Your task to perform on an android device: check android version Image 0: 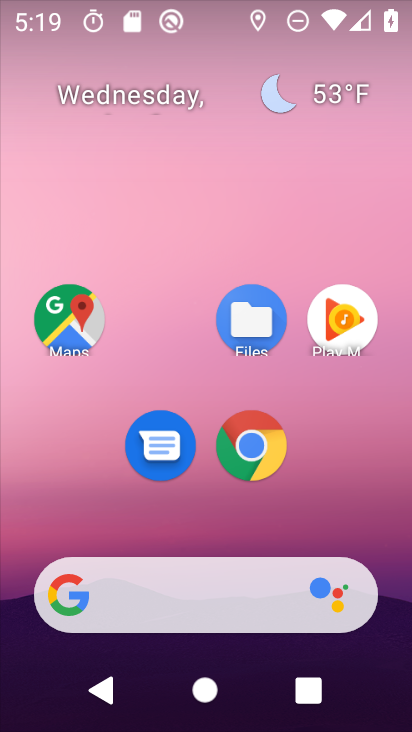
Step 0: drag from (317, 474) to (209, 3)
Your task to perform on an android device: check android version Image 1: 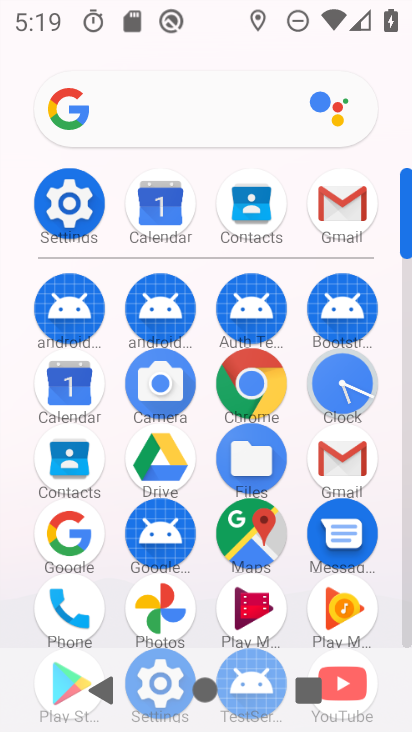
Step 1: click (75, 195)
Your task to perform on an android device: check android version Image 2: 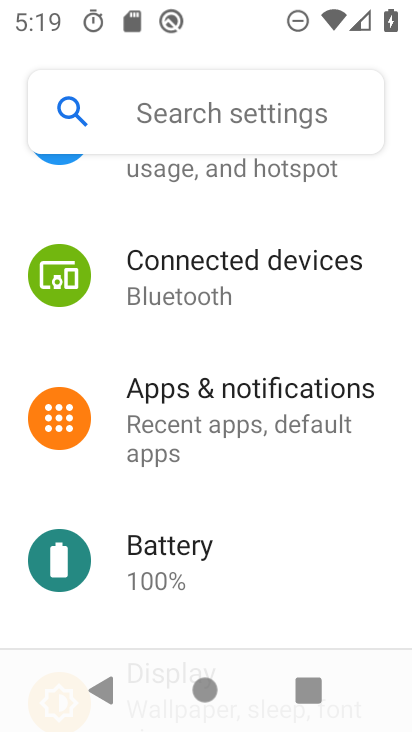
Step 2: drag from (229, 565) to (210, 280)
Your task to perform on an android device: check android version Image 3: 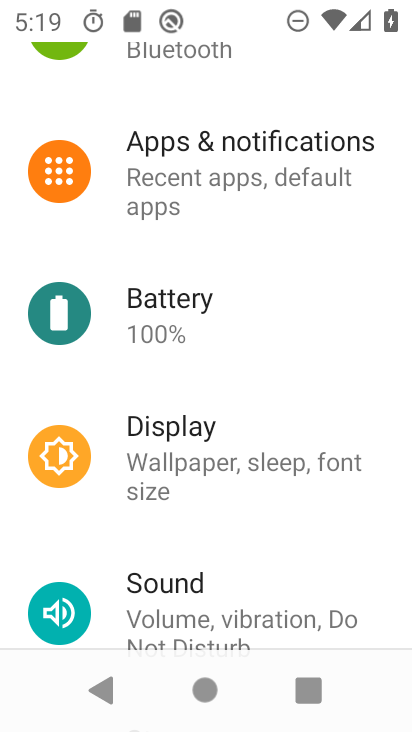
Step 3: drag from (233, 569) to (216, 309)
Your task to perform on an android device: check android version Image 4: 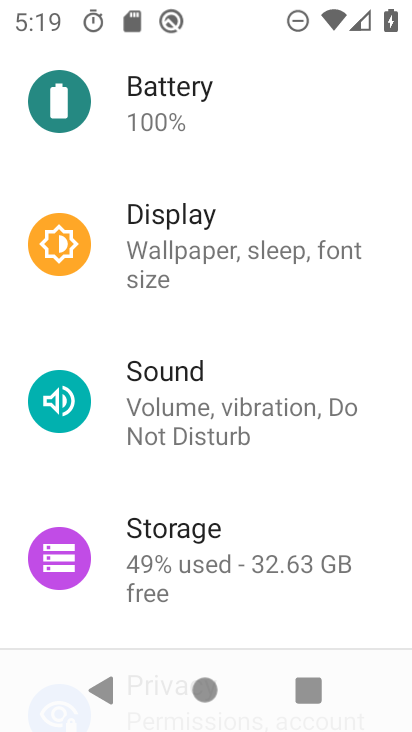
Step 4: drag from (229, 572) to (231, 309)
Your task to perform on an android device: check android version Image 5: 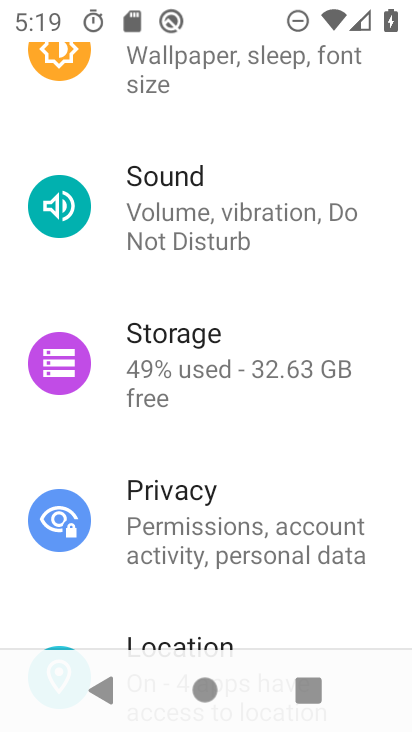
Step 5: drag from (258, 556) to (254, 269)
Your task to perform on an android device: check android version Image 6: 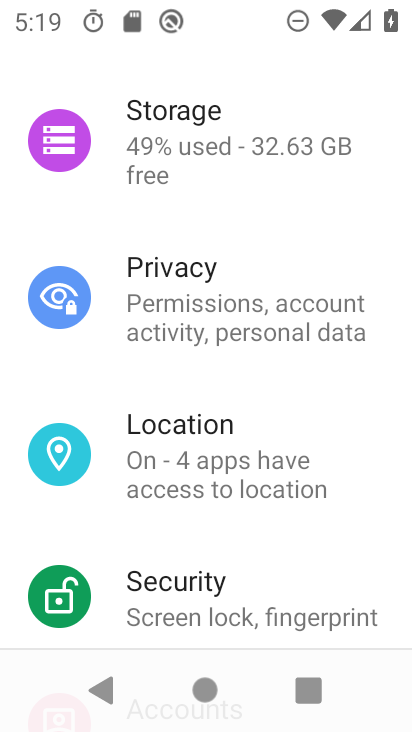
Step 6: drag from (234, 542) to (239, 279)
Your task to perform on an android device: check android version Image 7: 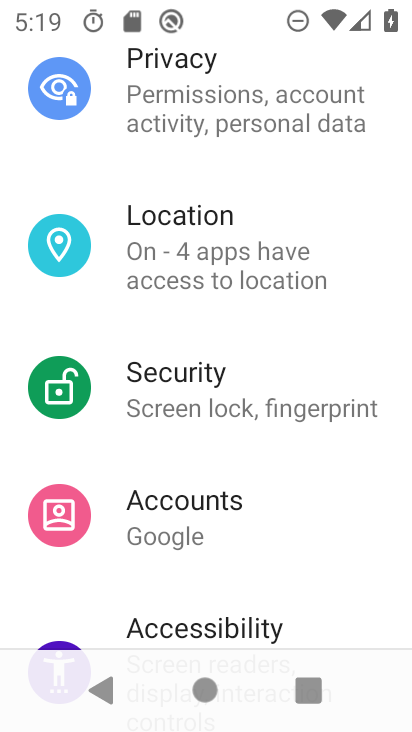
Step 7: drag from (233, 511) to (226, 213)
Your task to perform on an android device: check android version Image 8: 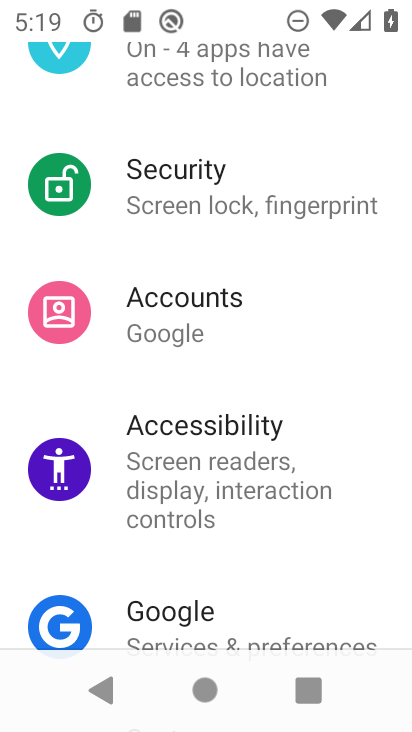
Step 8: drag from (251, 563) to (218, 167)
Your task to perform on an android device: check android version Image 9: 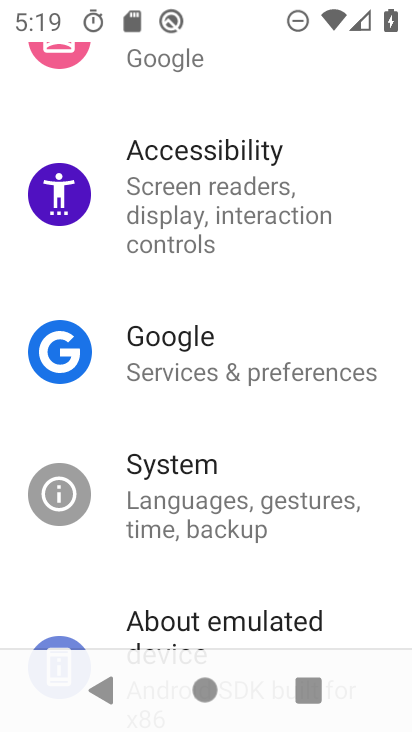
Step 9: drag from (271, 595) to (280, 175)
Your task to perform on an android device: check android version Image 10: 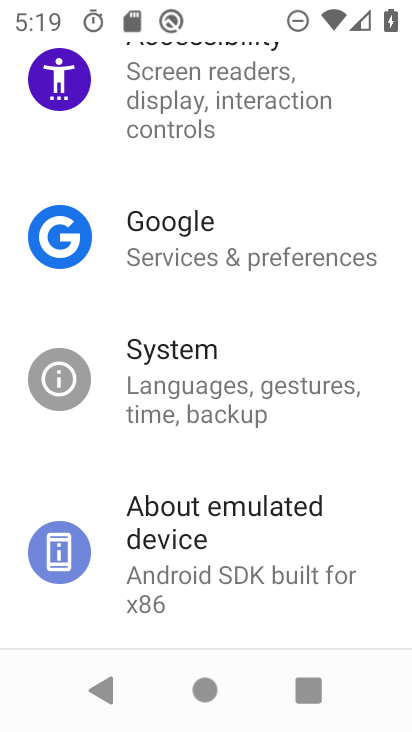
Step 10: click (190, 521)
Your task to perform on an android device: check android version Image 11: 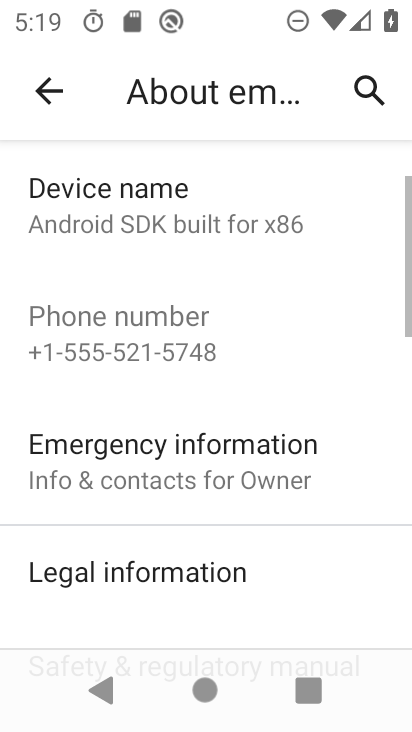
Step 11: drag from (240, 547) to (243, 211)
Your task to perform on an android device: check android version Image 12: 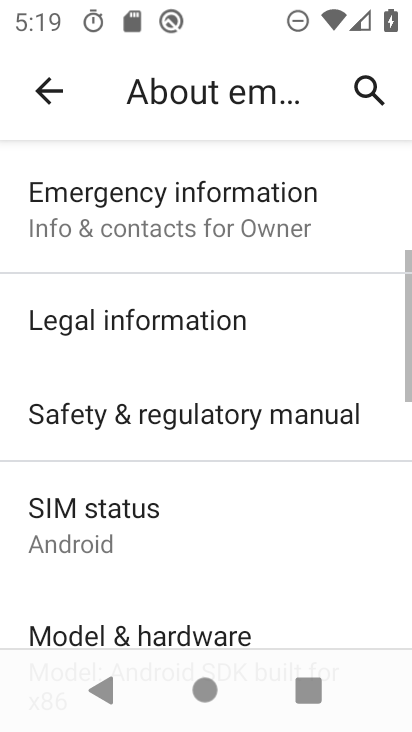
Step 12: drag from (215, 567) to (183, 278)
Your task to perform on an android device: check android version Image 13: 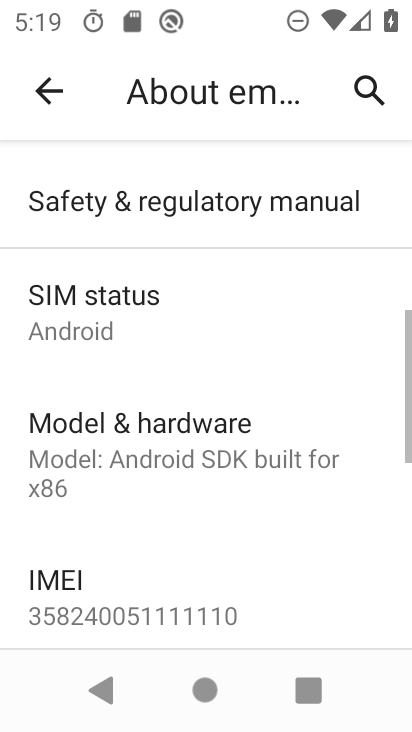
Step 13: drag from (167, 564) to (173, 328)
Your task to perform on an android device: check android version Image 14: 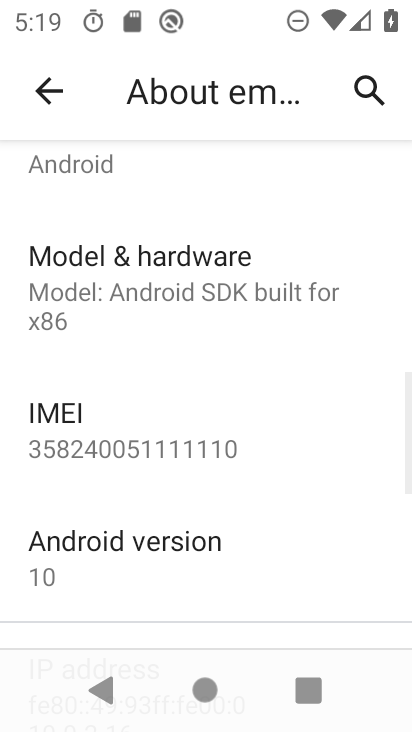
Step 14: drag from (203, 585) to (203, 310)
Your task to perform on an android device: check android version Image 15: 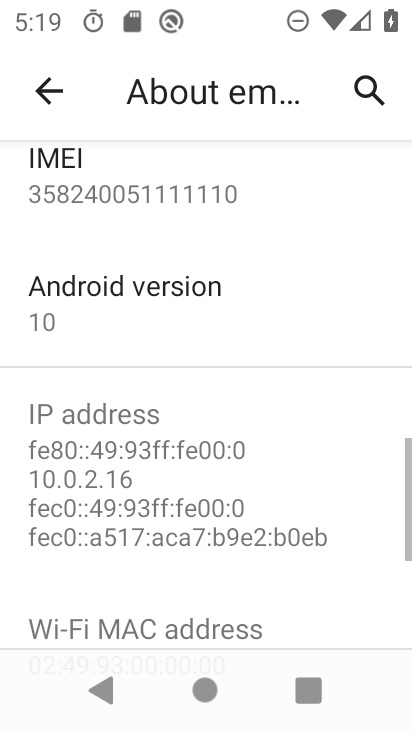
Step 15: click (231, 302)
Your task to perform on an android device: check android version Image 16: 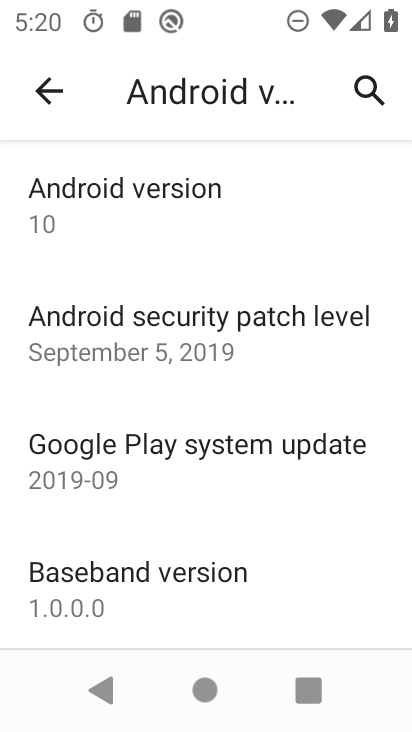
Step 16: task complete